Your task to perform on an android device: Go to Reddit.com Image 0: 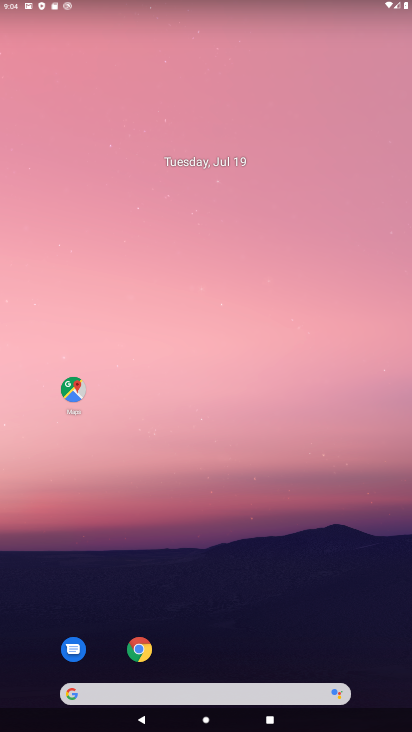
Step 0: drag from (356, 663) to (227, 15)
Your task to perform on an android device: Go to Reddit.com Image 1: 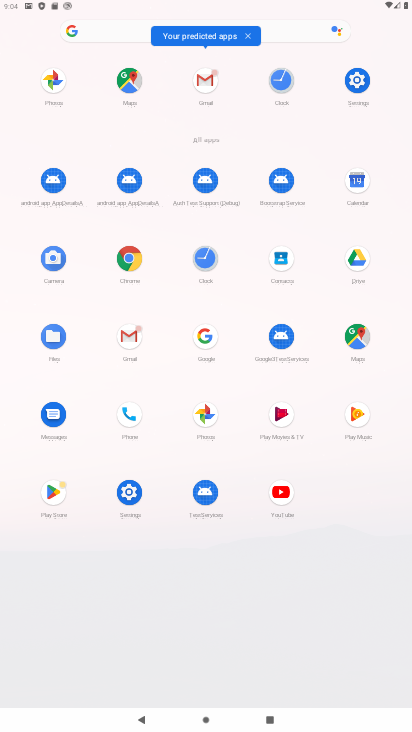
Step 1: click (200, 337)
Your task to perform on an android device: Go to Reddit.com Image 2: 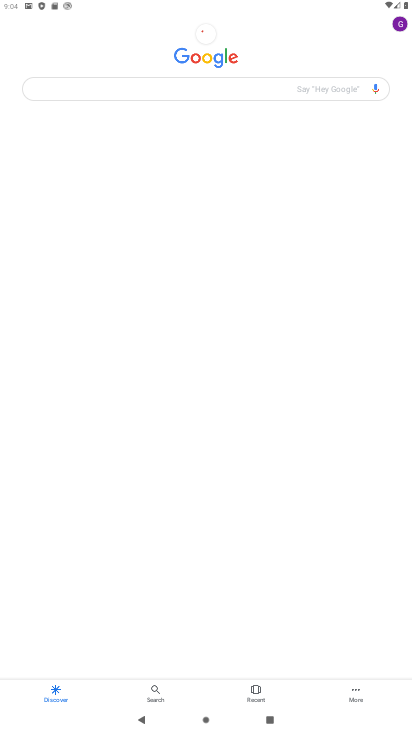
Step 2: click (173, 83)
Your task to perform on an android device: Go to Reddit.com Image 3: 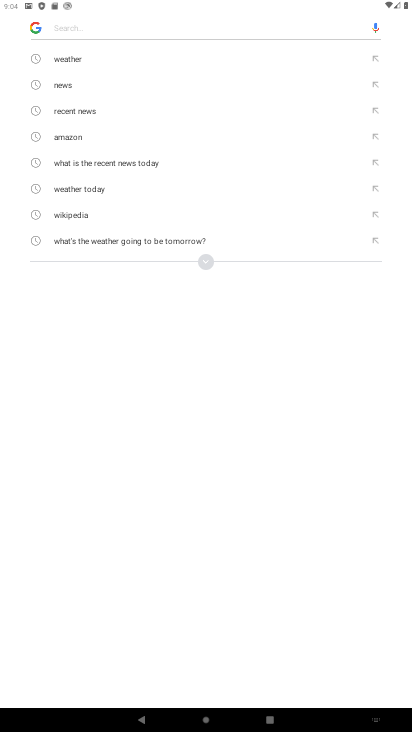
Step 3: type "Reddit.com"
Your task to perform on an android device: Go to Reddit.com Image 4: 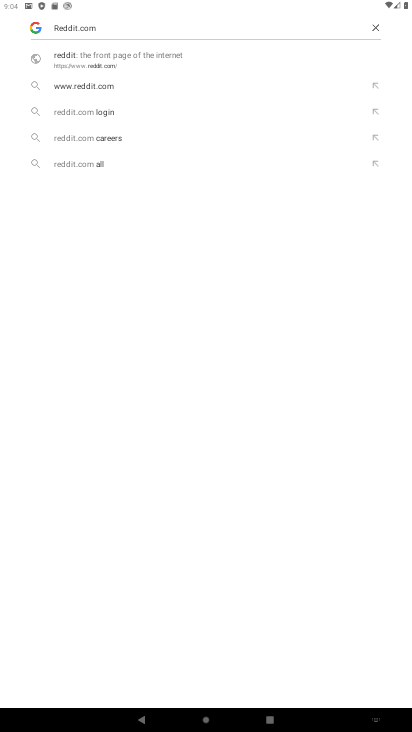
Step 4: click (81, 58)
Your task to perform on an android device: Go to Reddit.com Image 5: 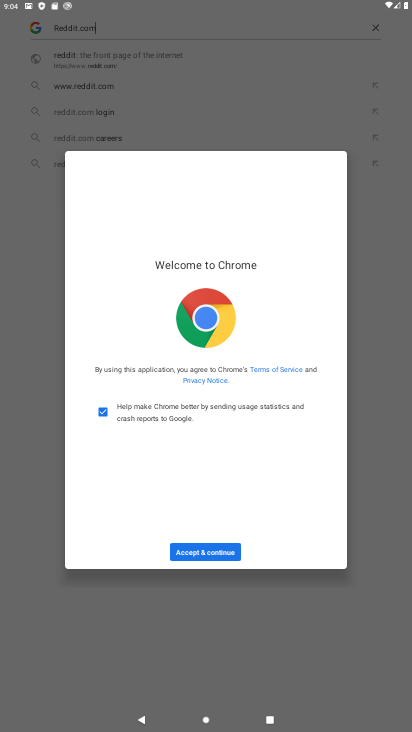
Step 5: click (198, 553)
Your task to perform on an android device: Go to Reddit.com Image 6: 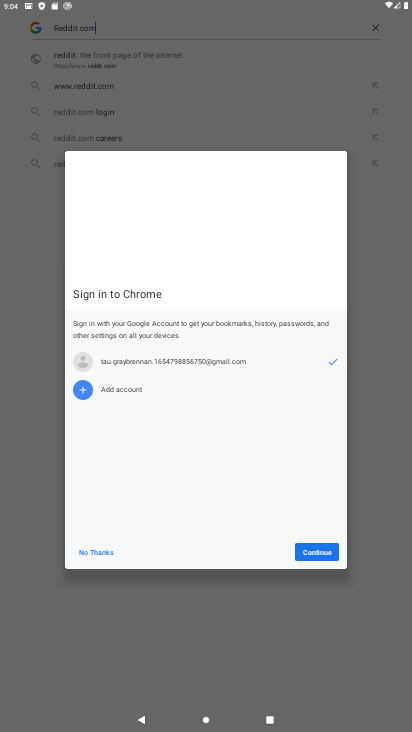
Step 6: click (315, 552)
Your task to perform on an android device: Go to Reddit.com Image 7: 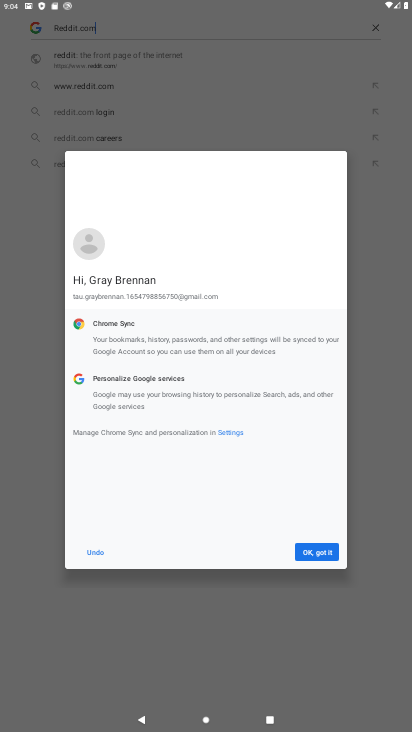
Step 7: click (315, 552)
Your task to perform on an android device: Go to Reddit.com Image 8: 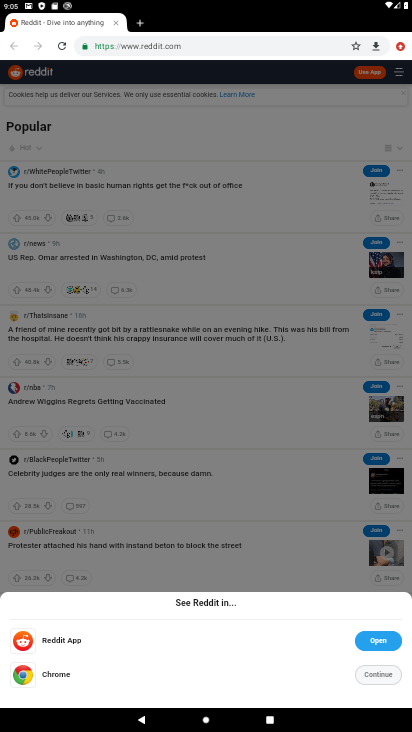
Step 8: task complete